Your task to perform on an android device: Go to display settings Image 0: 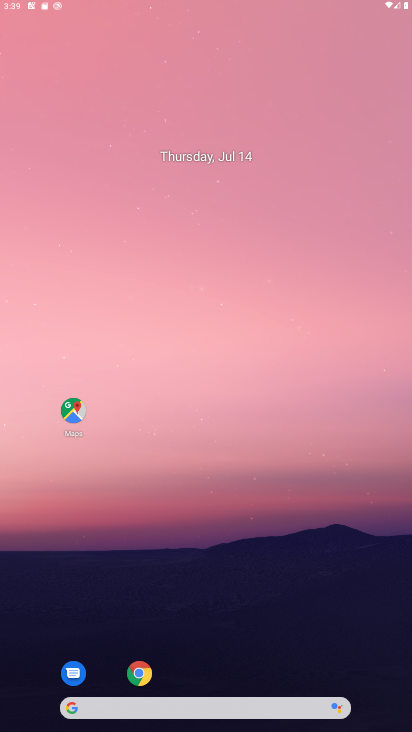
Step 0: press home button
Your task to perform on an android device: Go to display settings Image 1: 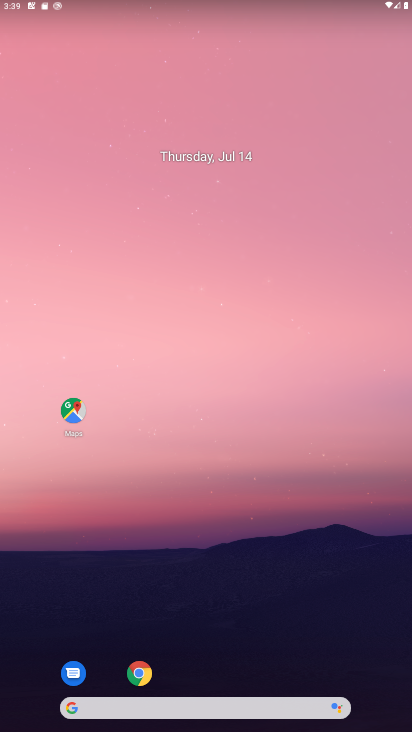
Step 1: press home button
Your task to perform on an android device: Go to display settings Image 2: 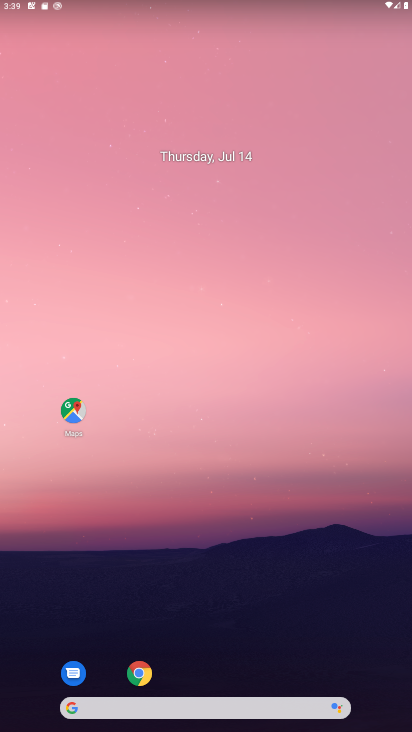
Step 2: drag from (291, 686) to (321, 145)
Your task to perform on an android device: Go to display settings Image 3: 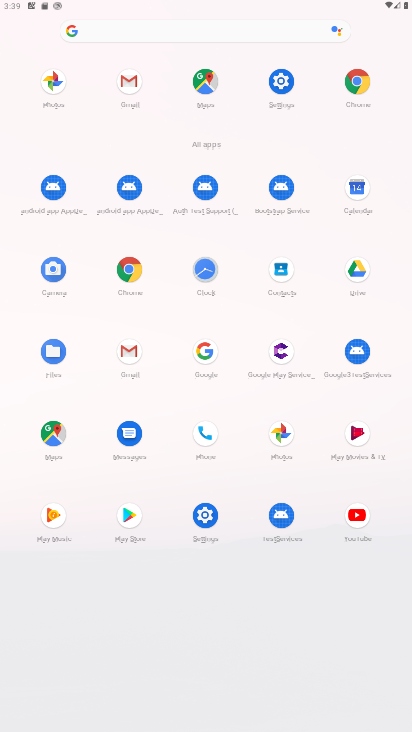
Step 3: click (278, 81)
Your task to perform on an android device: Go to display settings Image 4: 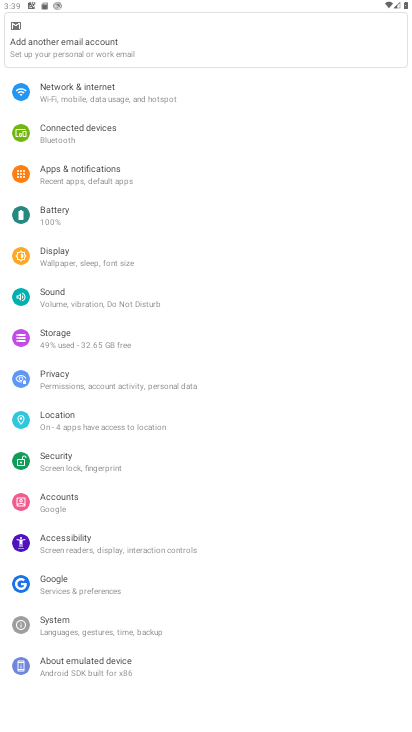
Step 4: click (76, 248)
Your task to perform on an android device: Go to display settings Image 5: 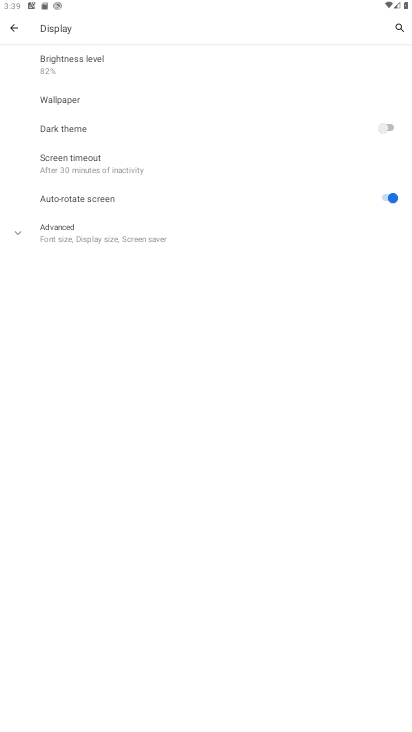
Step 5: click (58, 235)
Your task to perform on an android device: Go to display settings Image 6: 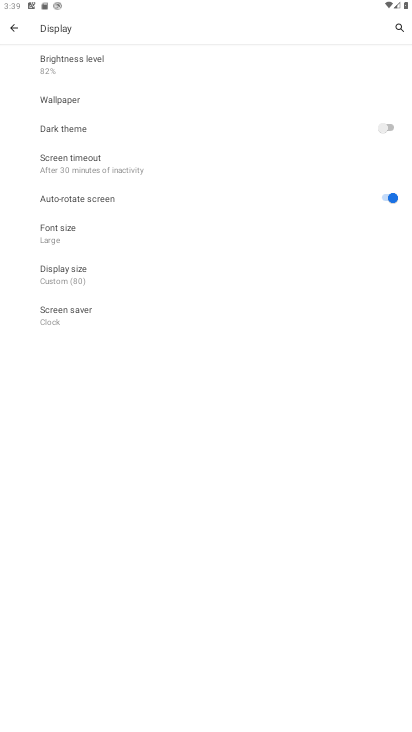
Step 6: task complete